Your task to perform on an android device: allow notifications from all sites in the chrome app Image 0: 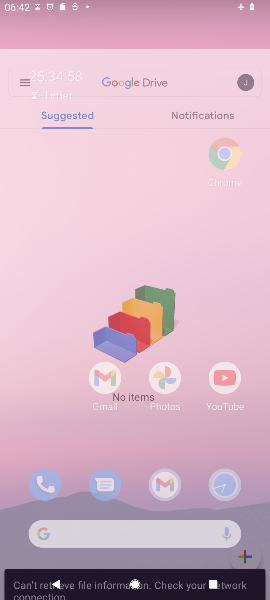
Step 0: press home button
Your task to perform on an android device: allow notifications from all sites in the chrome app Image 1: 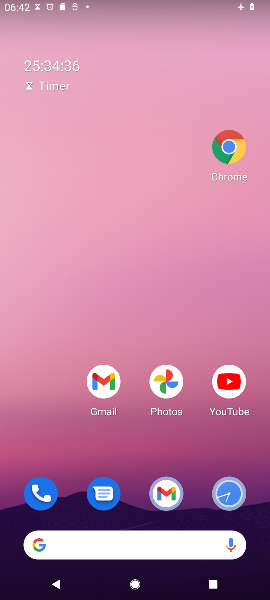
Step 1: click (233, 147)
Your task to perform on an android device: allow notifications from all sites in the chrome app Image 2: 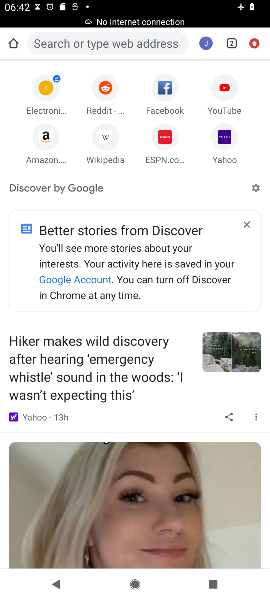
Step 2: drag from (256, 39) to (184, 323)
Your task to perform on an android device: allow notifications from all sites in the chrome app Image 3: 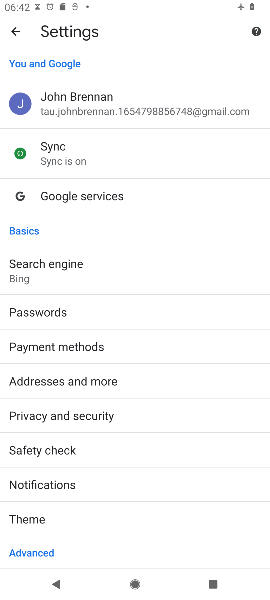
Step 3: drag from (119, 536) to (151, 315)
Your task to perform on an android device: allow notifications from all sites in the chrome app Image 4: 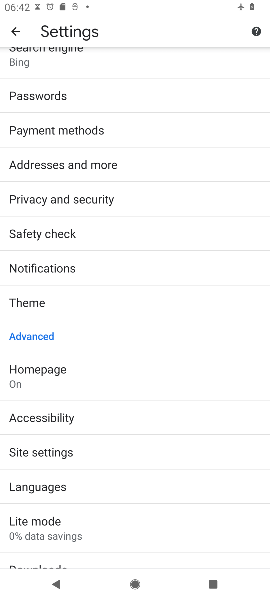
Step 4: click (44, 451)
Your task to perform on an android device: allow notifications from all sites in the chrome app Image 5: 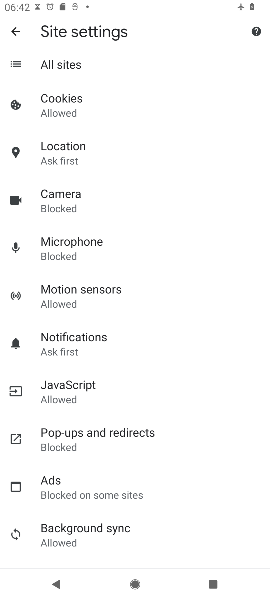
Step 5: click (66, 341)
Your task to perform on an android device: allow notifications from all sites in the chrome app Image 6: 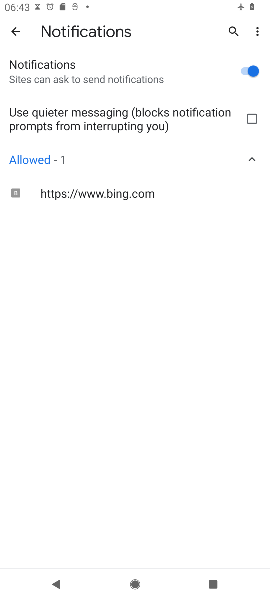
Step 6: task complete